Your task to perform on an android device: What's on my calendar today? Image 0: 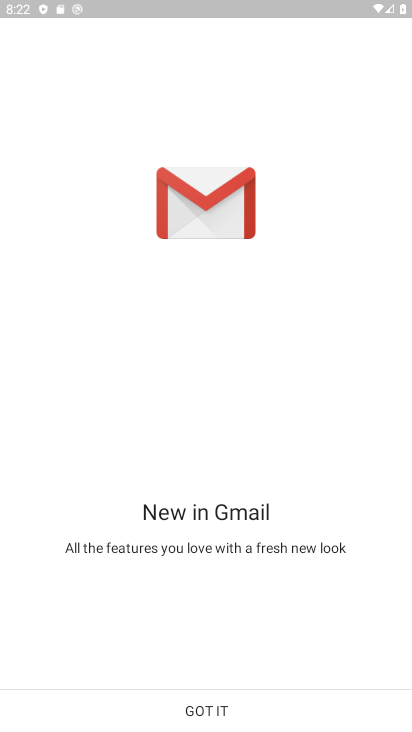
Step 0: press home button
Your task to perform on an android device: What's on my calendar today? Image 1: 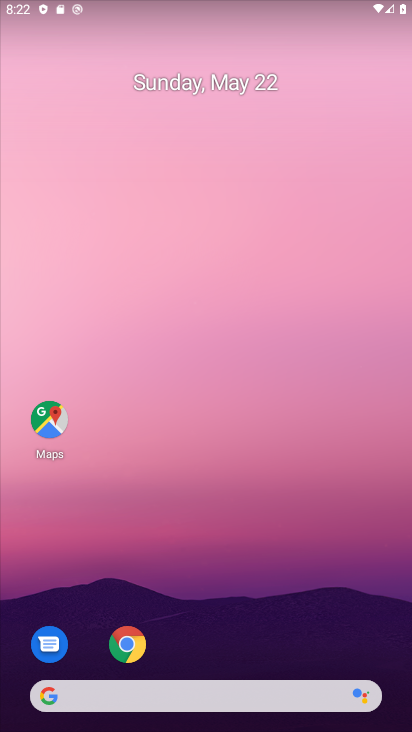
Step 1: drag from (264, 700) to (259, 65)
Your task to perform on an android device: What's on my calendar today? Image 2: 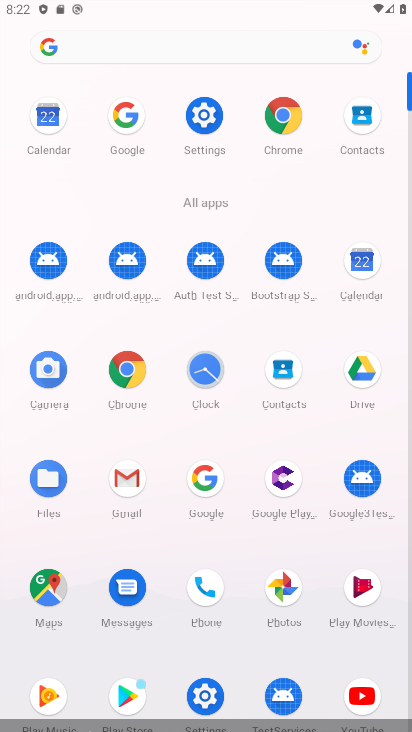
Step 2: click (360, 270)
Your task to perform on an android device: What's on my calendar today? Image 3: 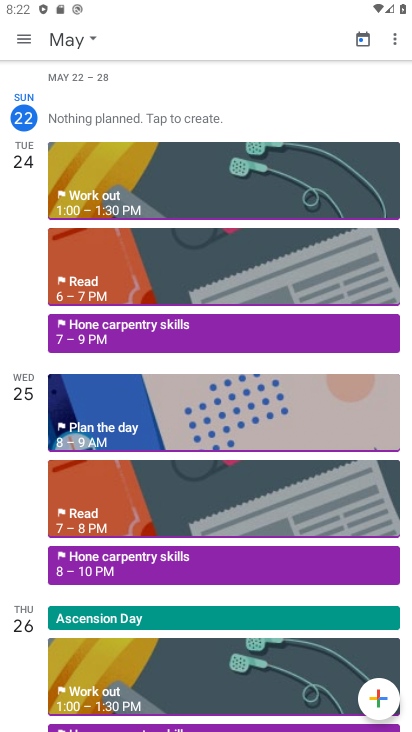
Step 3: task complete